Your task to perform on an android device: What's on my calendar today? Image 0: 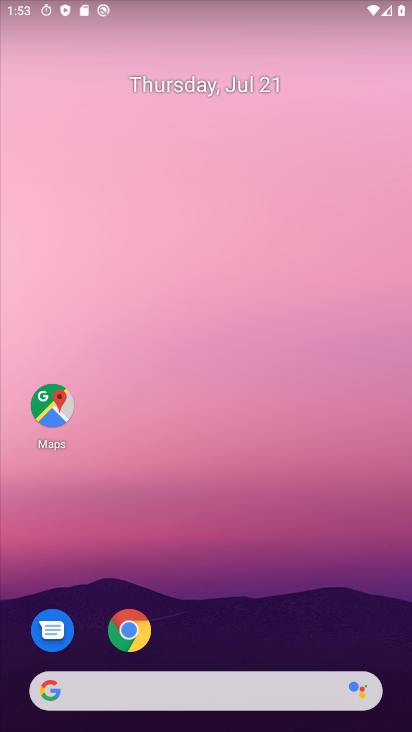
Step 0: drag from (221, 640) to (324, 57)
Your task to perform on an android device: What's on my calendar today? Image 1: 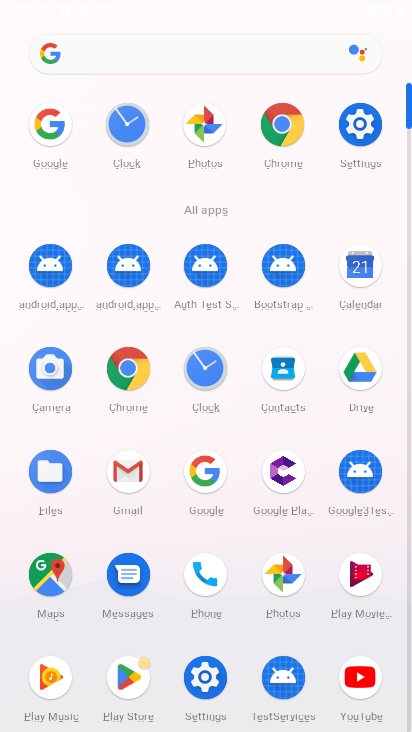
Step 1: click (364, 267)
Your task to perform on an android device: What's on my calendar today? Image 2: 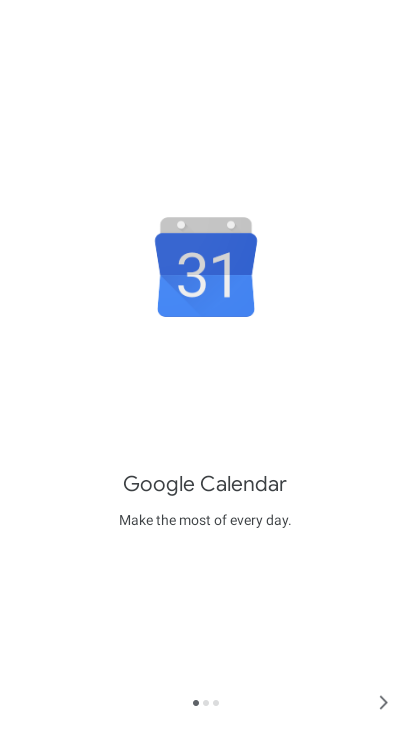
Step 2: click (379, 702)
Your task to perform on an android device: What's on my calendar today? Image 3: 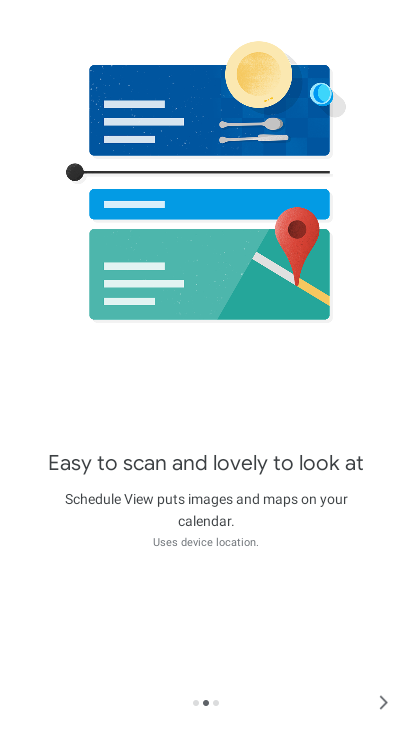
Step 3: click (379, 702)
Your task to perform on an android device: What's on my calendar today? Image 4: 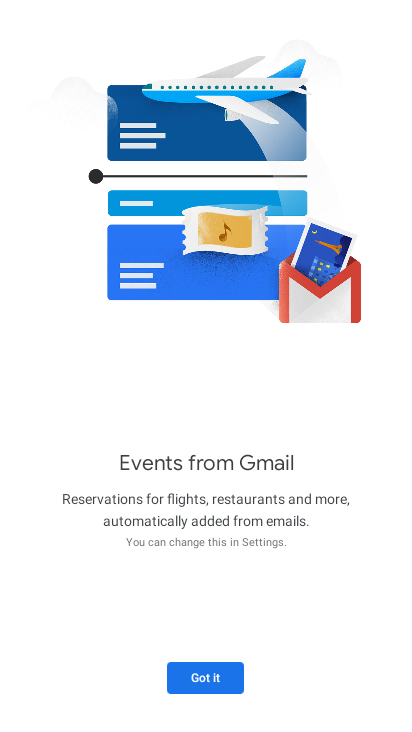
Step 4: click (211, 676)
Your task to perform on an android device: What's on my calendar today? Image 5: 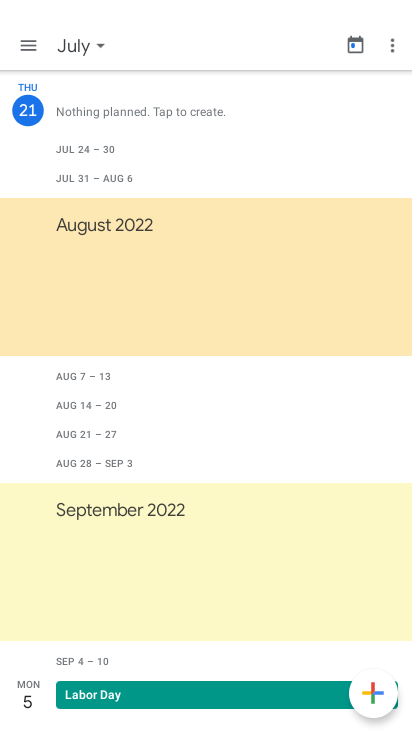
Step 5: click (94, 52)
Your task to perform on an android device: What's on my calendar today? Image 6: 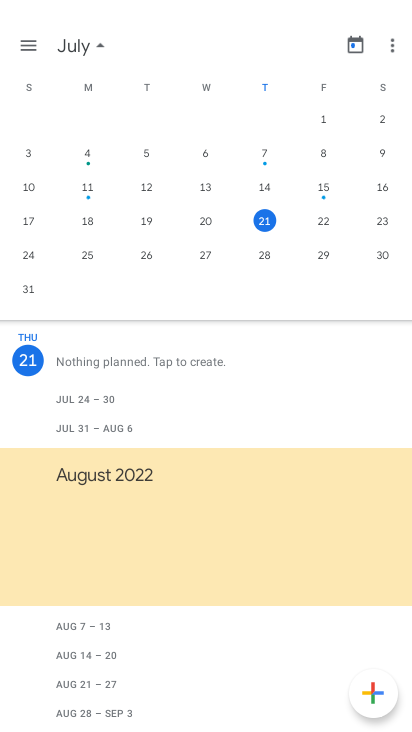
Step 6: task complete